Your task to perform on an android device: When is my next appointment? Image 0: 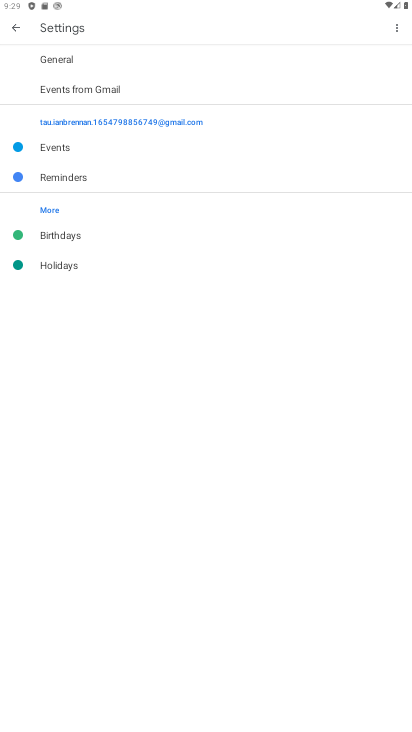
Step 0: press home button
Your task to perform on an android device: When is my next appointment? Image 1: 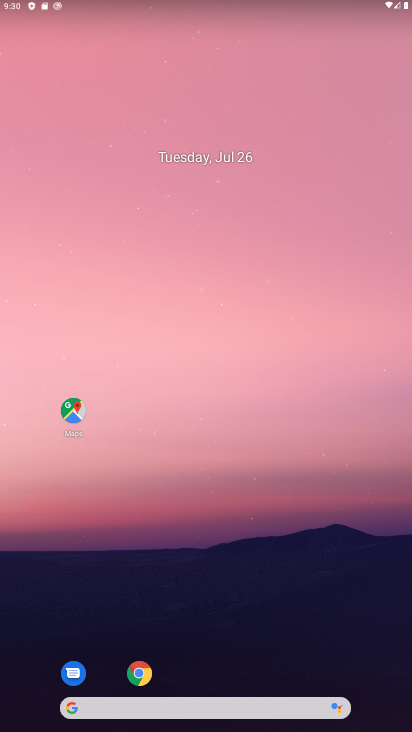
Step 1: drag from (28, 662) to (263, 123)
Your task to perform on an android device: When is my next appointment? Image 2: 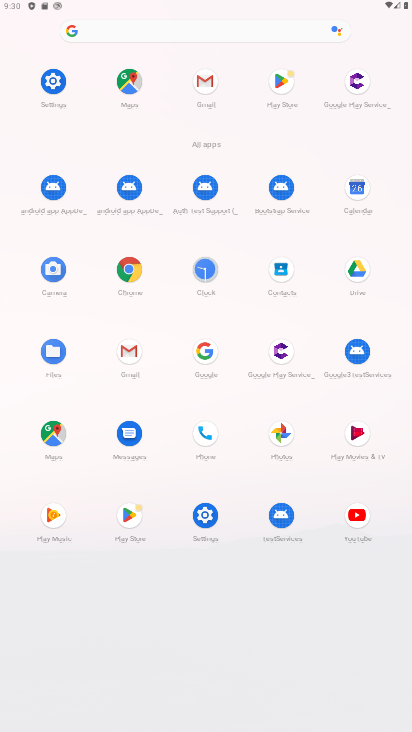
Step 2: click (347, 194)
Your task to perform on an android device: When is my next appointment? Image 3: 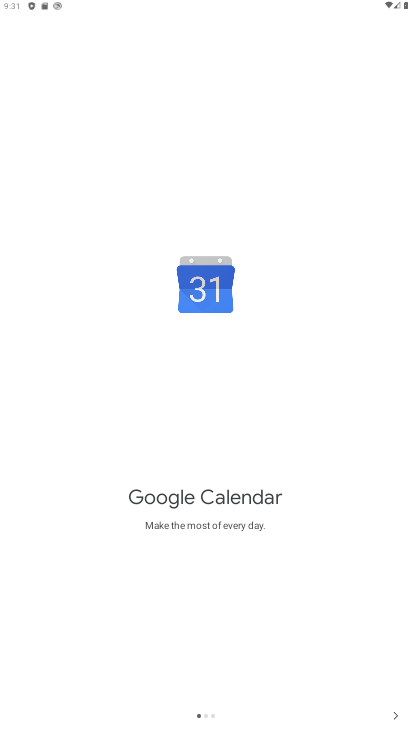
Step 3: click (399, 718)
Your task to perform on an android device: When is my next appointment? Image 4: 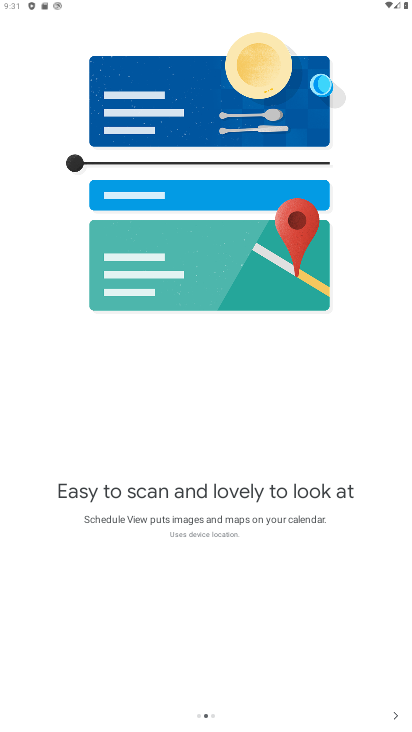
Step 4: click (398, 710)
Your task to perform on an android device: When is my next appointment? Image 5: 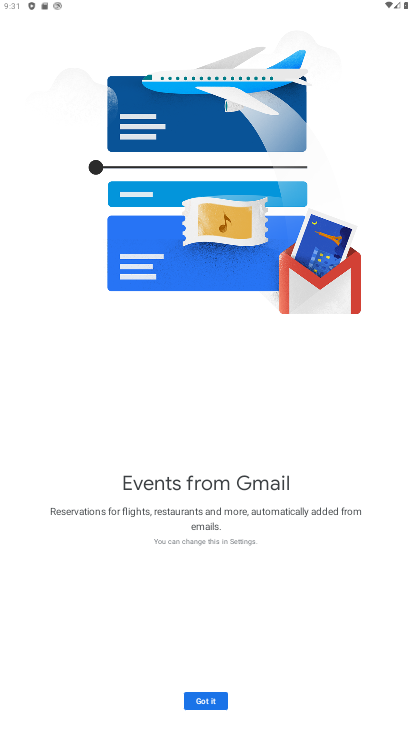
Step 5: click (208, 703)
Your task to perform on an android device: When is my next appointment? Image 6: 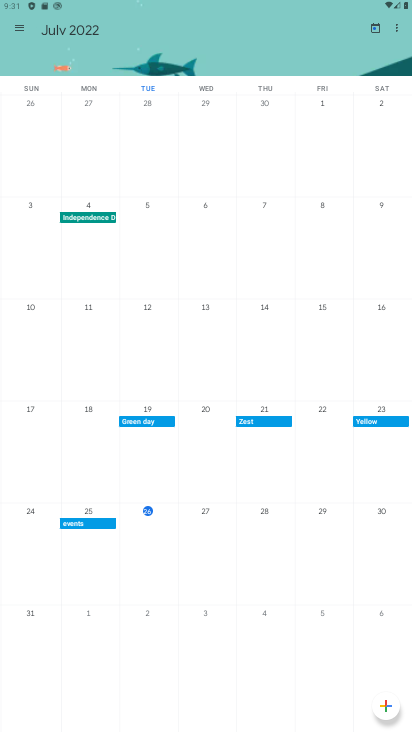
Step 6: click (47, 19)
Your task to perform on an android device: When is my next appointment? Image 7: 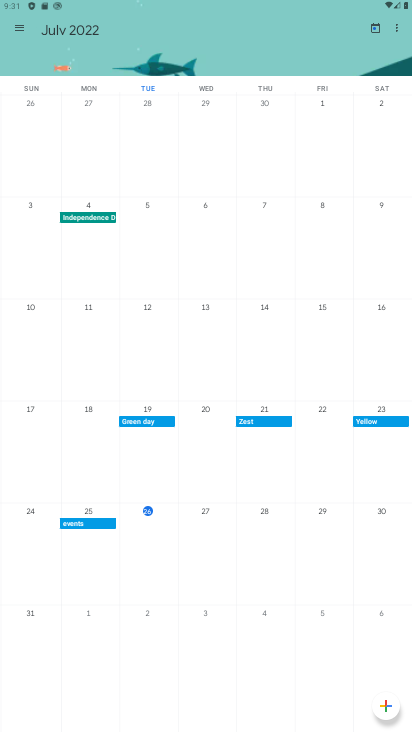
Step 7: click (49, 29)
Your task to perform on an android device: When is my next appointment? Image 8: 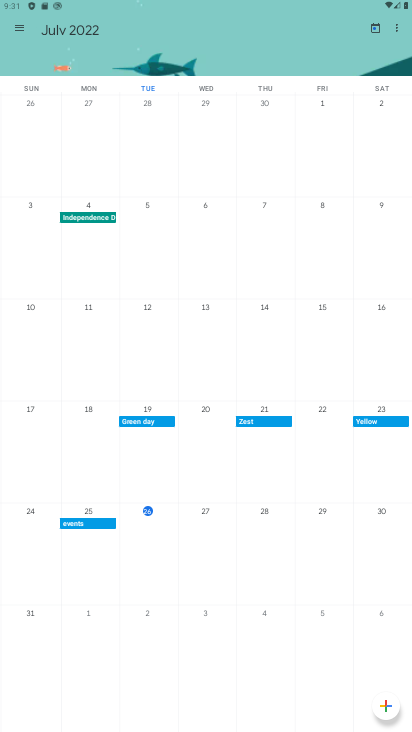
Step 8: click (49, 29)
Your task to perform on an android device: When is my next appointment? Image 9: 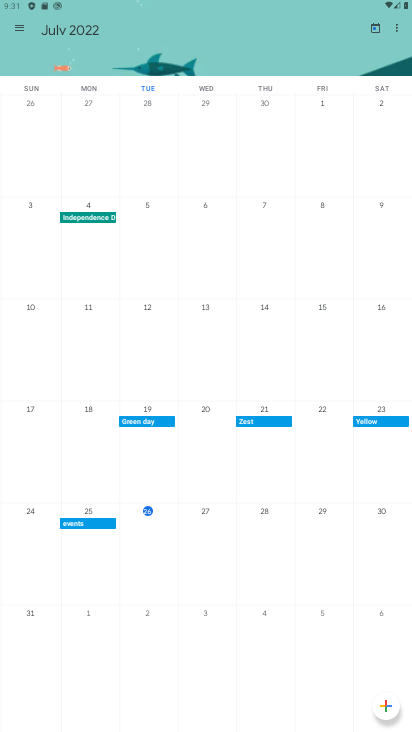
Step 9: task complete